Your task to perform on an android device: add a label to a message in the gmail app Image 0: 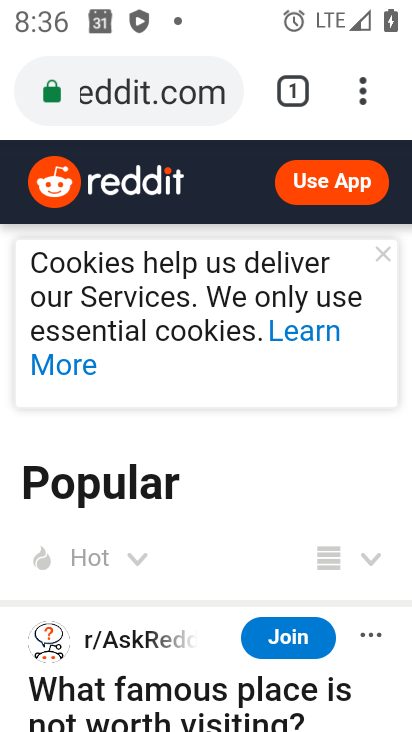
Step 0: press home button
Your task to perform on an android device: add a label to a message in the gmail app Image 1: 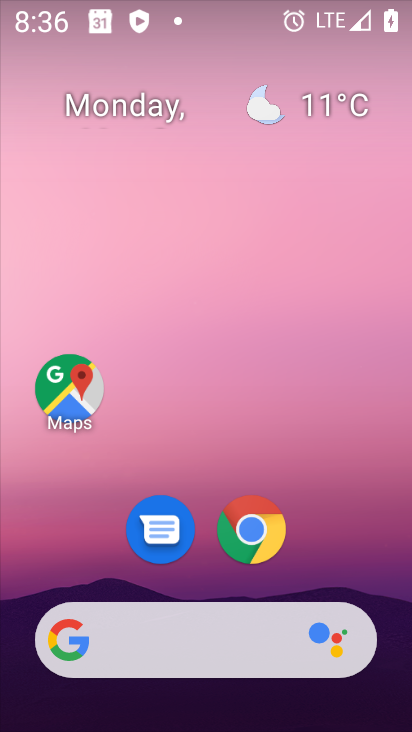
Step 1: drag from (185, 625) to (249, 104)
Your task to perform on an android device: add a label to a message in the gmail app Image 2: 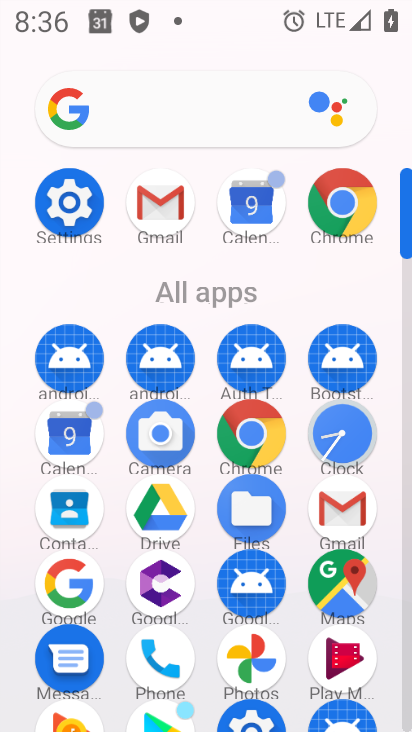
Step 2: click (159, 207)
Your task to perform on an android device: add a label to a message in the gmail app Image 3: 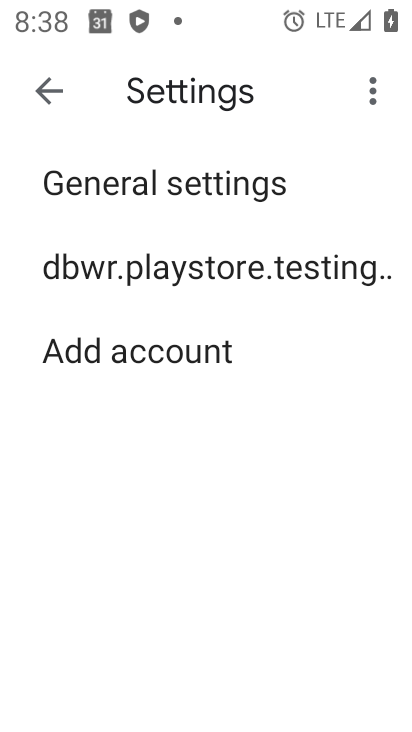
Step 3: press home button
Your task to perform on an android device: add a label to a message in the gmail app Image 4: 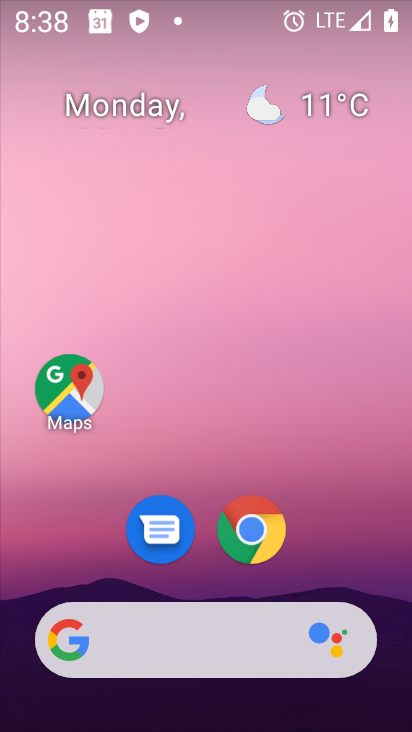
Step 4: drag from (189, 632) to (170, 91)
Your task to perform on an android device: add a label to a message in the gmail app Image 5: 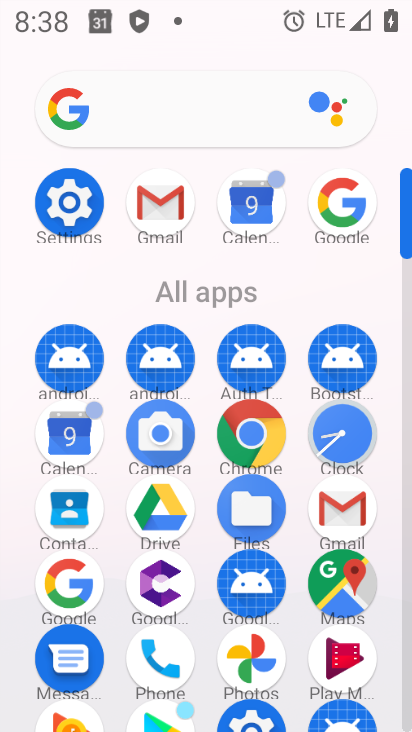
Step 5: click (360, 502)
Your task to perform on an android device: add a label to a message in the gmail app Image 6: 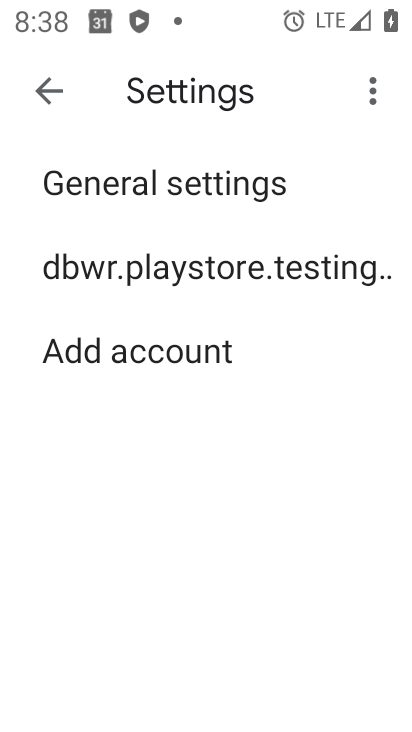
Step 6: click (42, 103)
Your task to perform on an android device: add a label to a message in the gmail app Image 7: 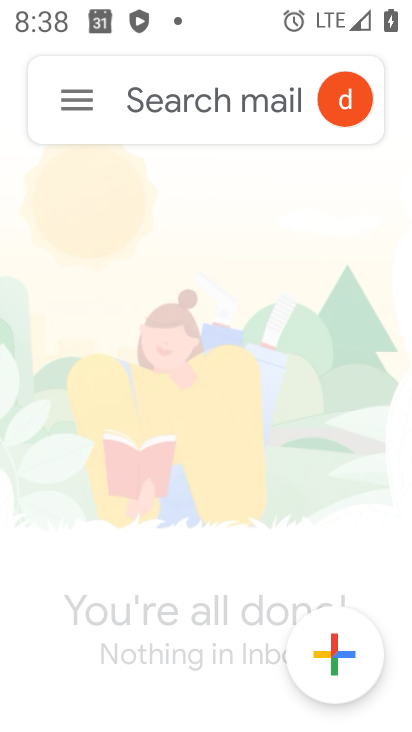
Step 7: click (67, 102)
Your task to perform on an android device: add a label to a message in the gmail app Image 8: 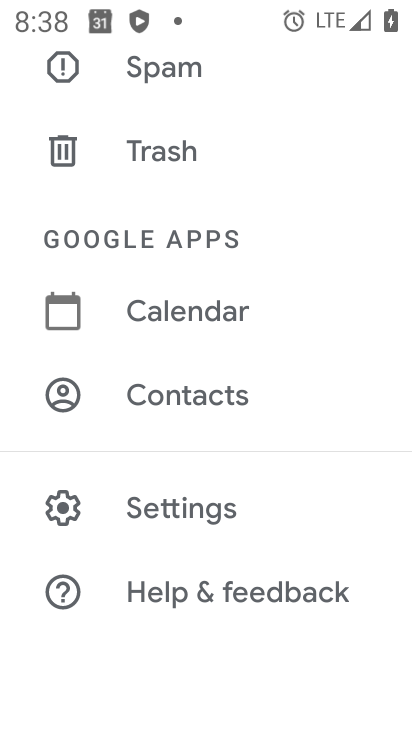
Step 8: drag from (232, 55) to (197, 667)
Your task to perform on an android device: add a label to a message in the gmail app Image 9: 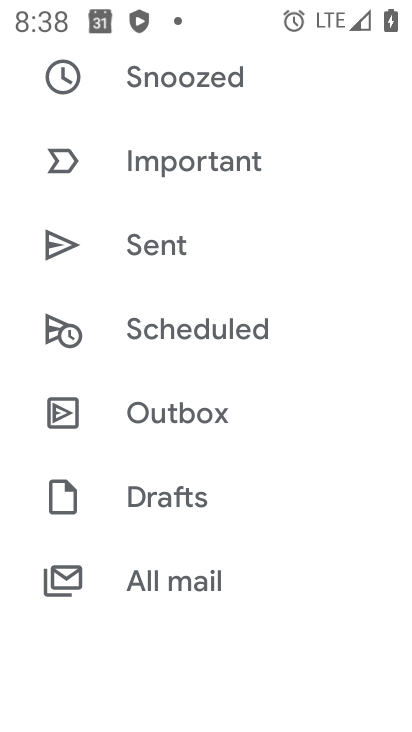
Step 9: click (163, 585)
Your task to perform on an android device: add a label to a message in the gmail app Image 10: 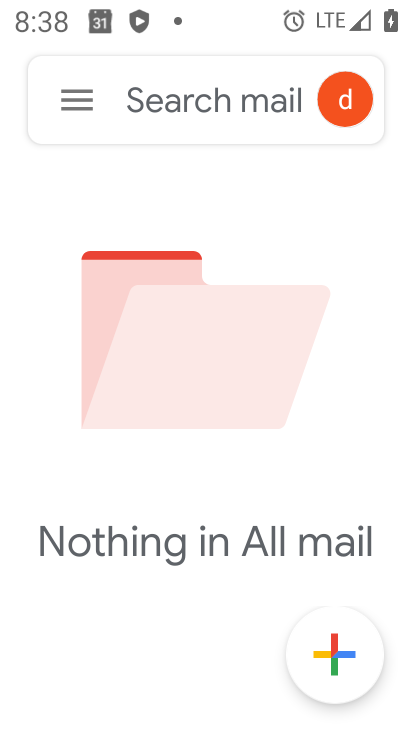
Step 10: task complete